Your task to perform on an android device: toggle priority inbox in the gmail app Image 0: 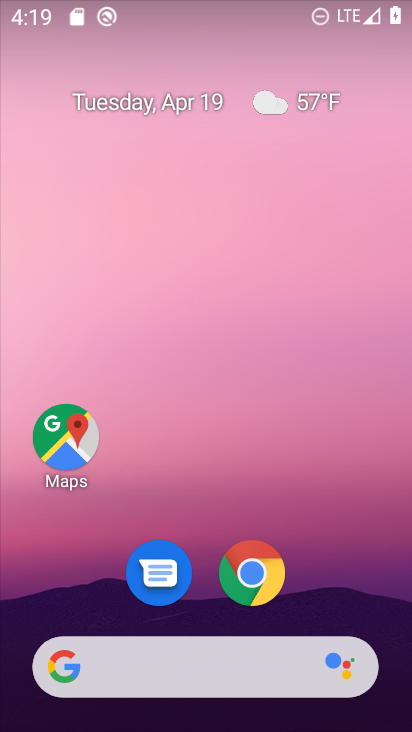
Step 0: drag from (337, 597) to (366, 1)
Your task to perform on an android device: toggle priority inbox in the gmail app Image 1: 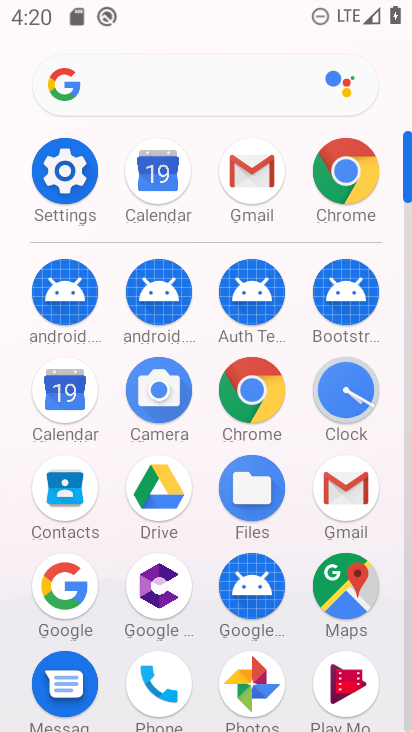
Step 1: click (249, 173)
Your task to perform on an android device: toggle priority inbox in the gmail app Image 2: 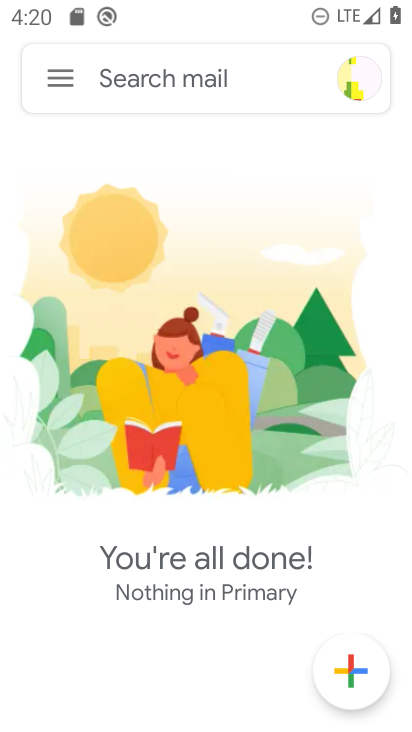
Step 2: click (60, 83)
Your task to perform on an android device: toggle priority inbox in the gmail app Image 3: 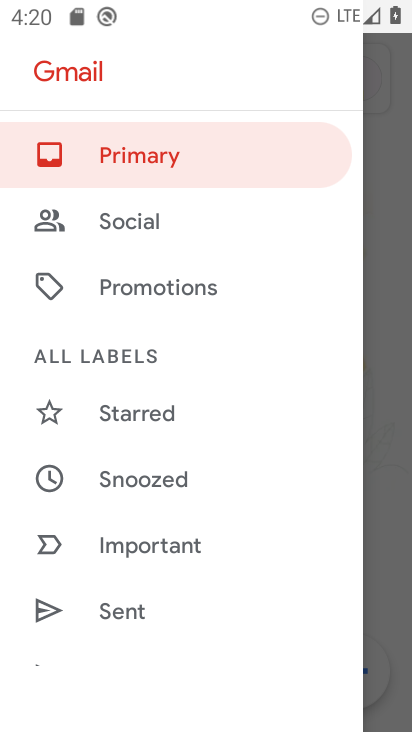
Step 3: drag from (262, 519) to (273, 172)
Your task to perform on an android device: toggle priority inbox in the gmail app Image 4: 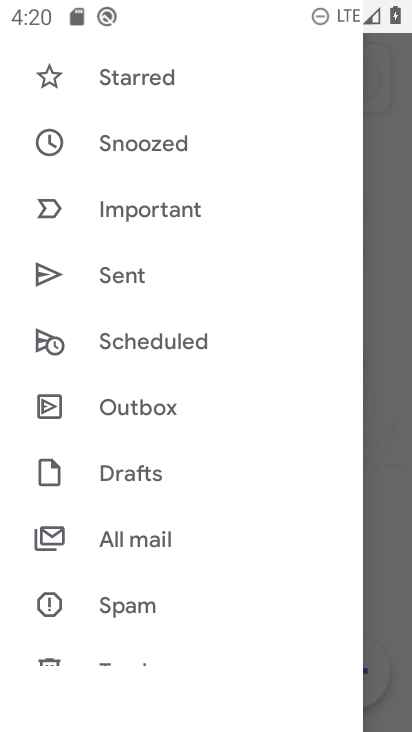
Step 4: drag from (239, 589) to (240, 279)
Your task to perform on an android device: toggle priority inbox in the gmail app Image 5: 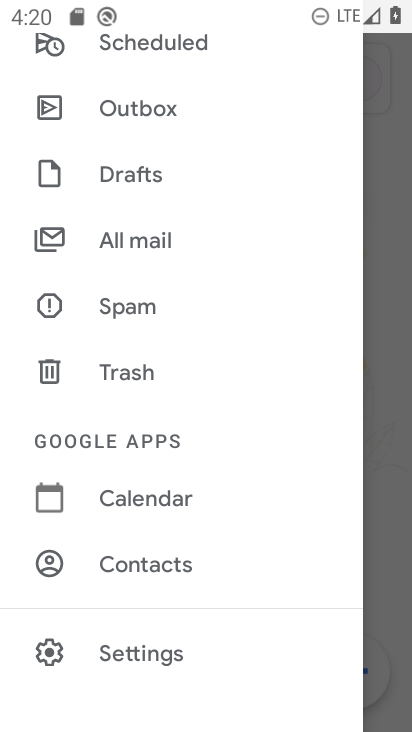
Step 5: drag from (197, 588) to (202, 314)
Your task to perform on an android device: toggle priority inbox in the gmail app Image 6: 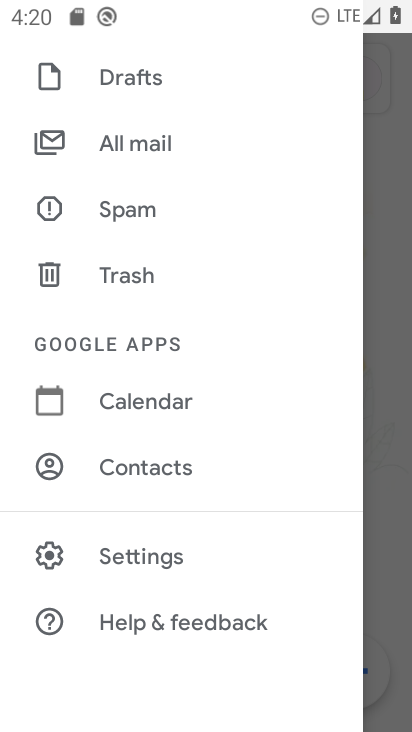
Step 6: click (160, 561)
Your task to perform on an android device: toggle priority inbox in the gmail app Image 7: 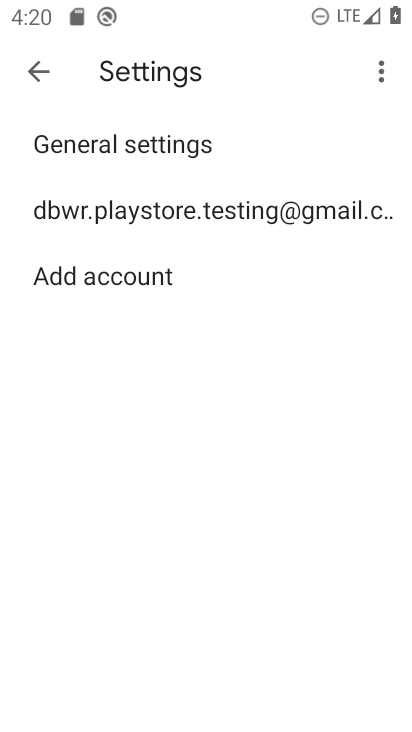
Step 7: click (168, 210)
Your task to perform on an android device: toggle priority inbox in the gmail app Image 8: 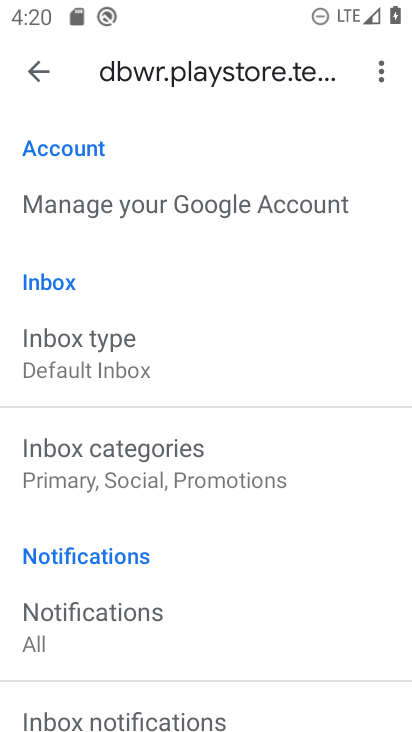
Step 8: click (79, 374)
Your task to perform on an android device: toggle priority inbox in the gmail app Image 9: 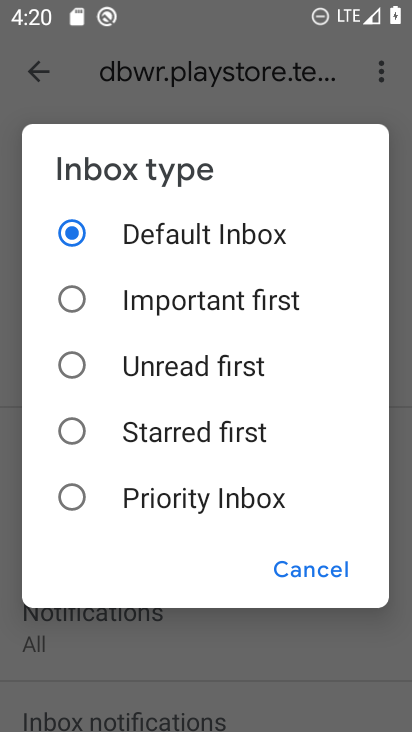
Step 9: click (72, 495)
Your task to perform on an android device: toggle priority inbox in the gmail app Image 10: 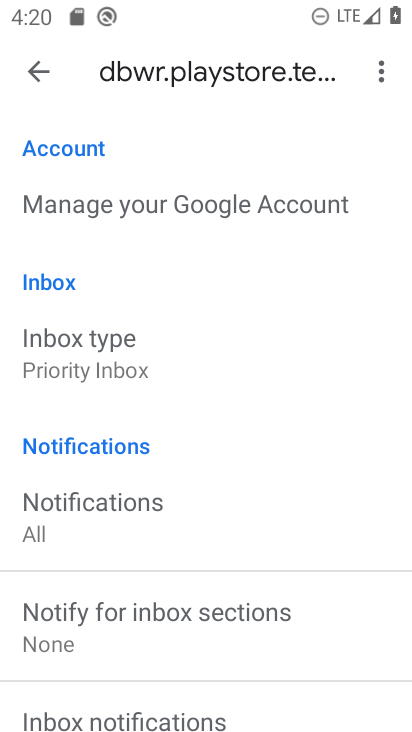
Step 10: task complete